Your task to perform on an android device: Go to eBay Image 0: 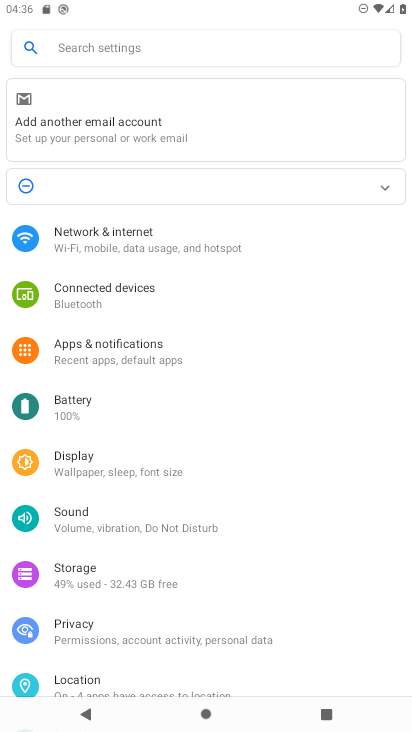
Step 0: press home button
Your task to perform on an android device: Go to eBay Image 1: 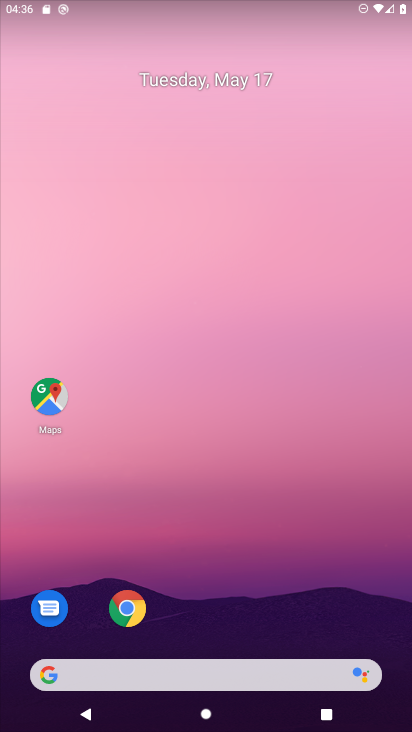
Step 1: click (132, 605)
Your task to perform on an android device: Go to eBay Image 2: 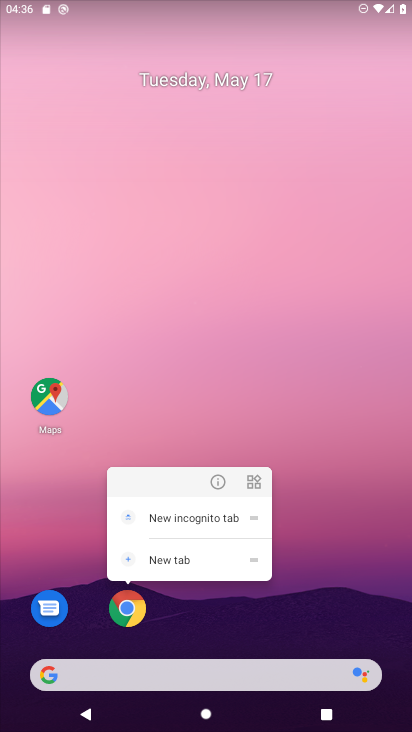
Step 2: click (132, 605)
Your task to perform on an android device: Go to eBay Image 3: 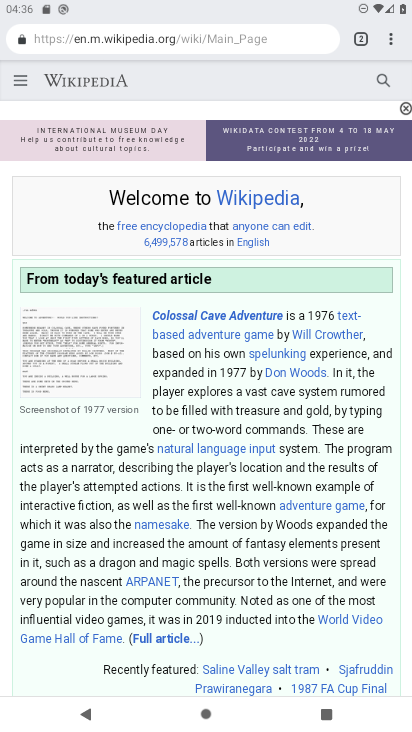
Step 3: click (360, 41)
Your task to perform on an android device: Go to eBay Image 4: 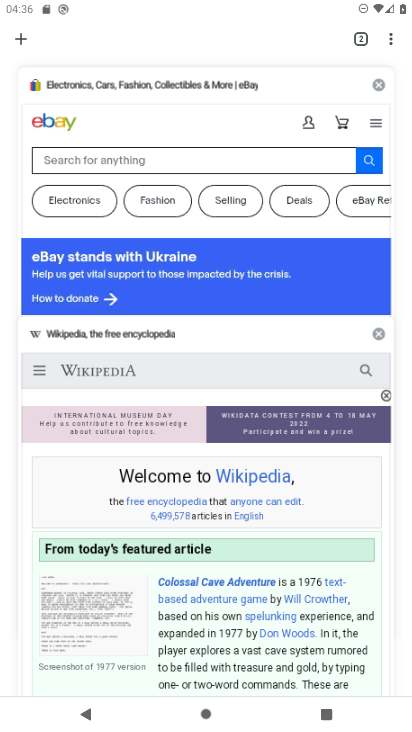
Step 4: click (379, 78)
Your task to perform on an android device: Go to eBay Image 5: 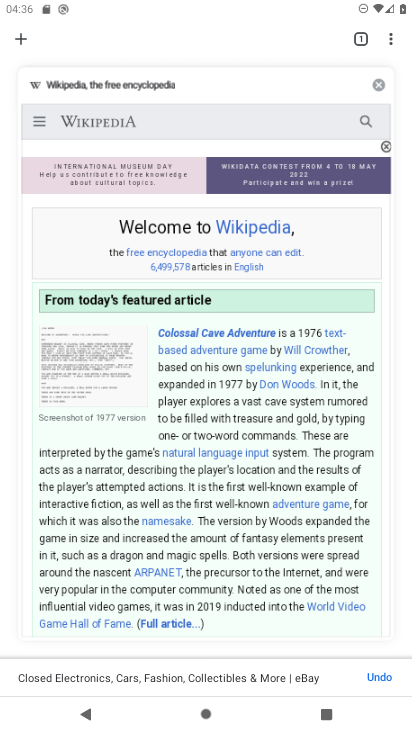
Step 5: click (373, 81)
Your task to perform on an android device: Go to eBay Image 6: 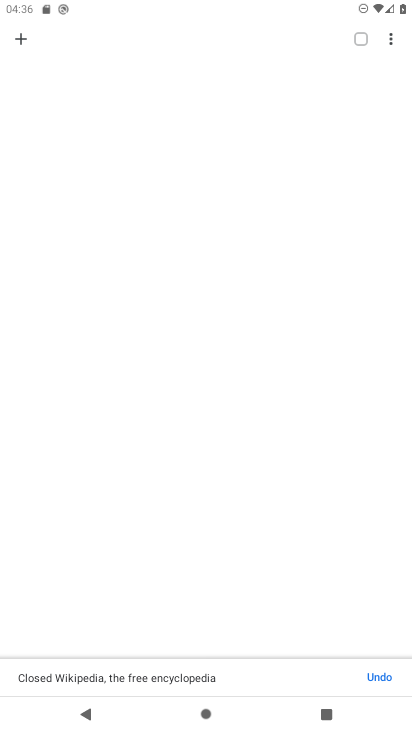
Step 6: click (21, 36)
Your task to perform on an android device: Go to eBay Image 7: 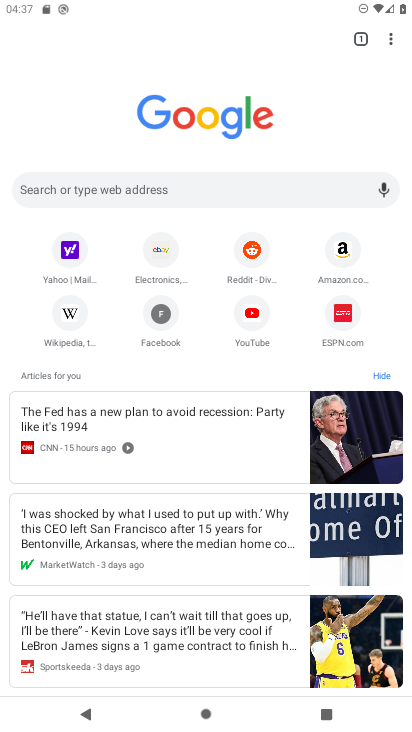
Step 7: click (160, 249)
Your task to perform on an android device: Go to eBay Image 8: 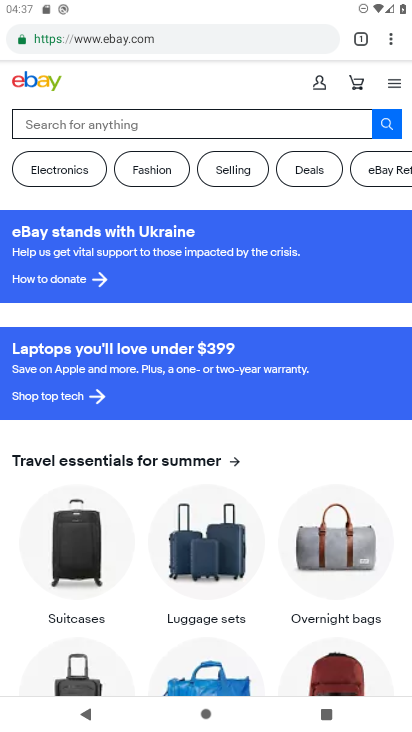
Step 8: task complete